Your task to perform on an android device: Open location settings Image 0: 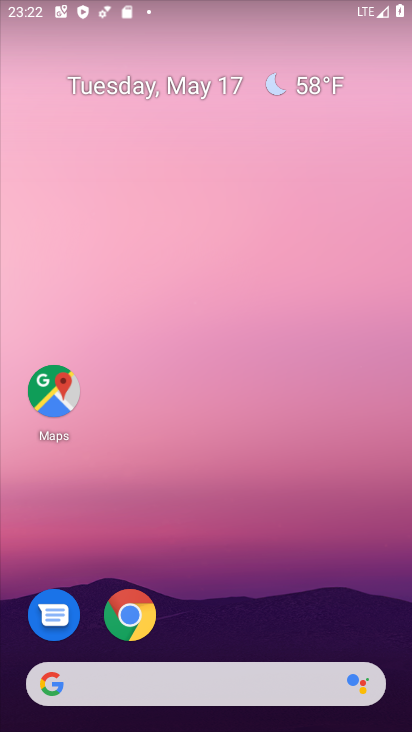
Step 0: drag from (230, 610) to (230, 226)
Your task to perform on an android device: Open location settings Image 1: 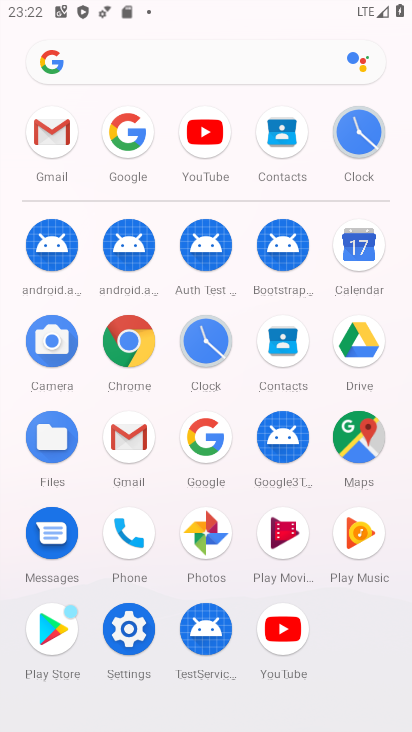
Step 1: click (142, 622)
Your task to perform on an android device: Open location settings Image 2: 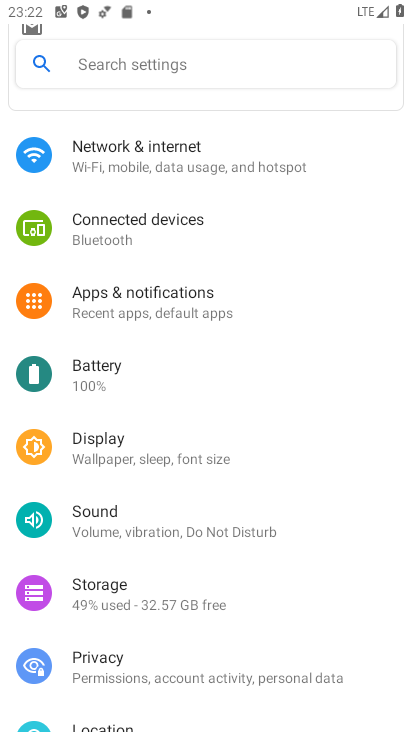
Step 2: drag from (171, 629) to (170, 341)
Your task to perform on an android device: Open location settings Image 3: 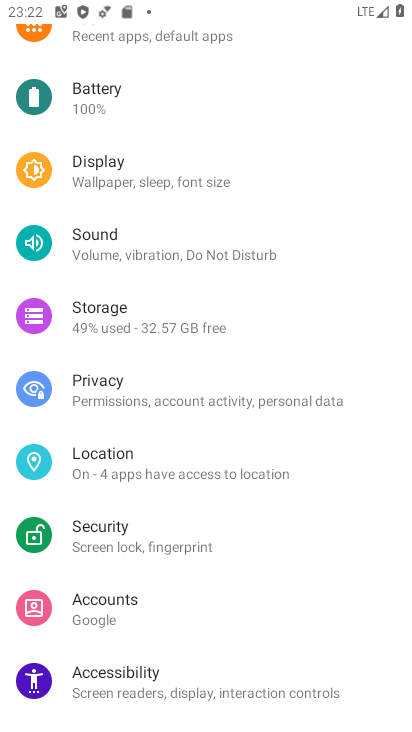
Step 3: click (159, 476)
Your task to perform on an android device: Open location settings Image 4: 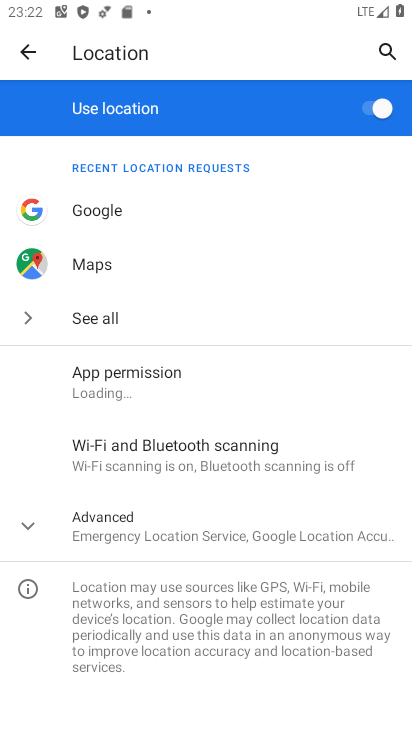
Step 4: task complete